Your task to perform on an android device: snooze an email in the gmail app Image 0: 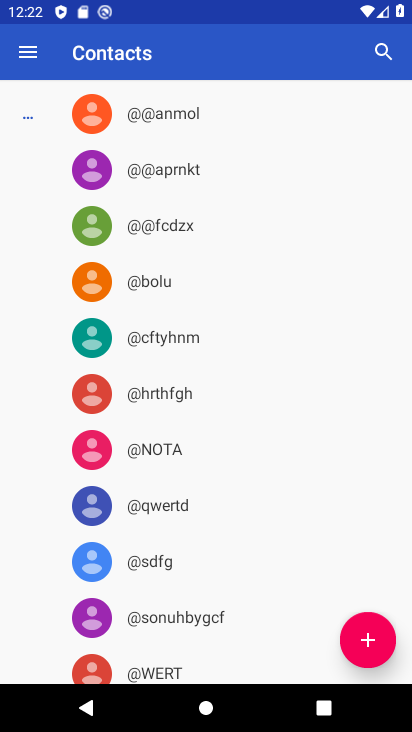
Step 0: press home button
Your task to perform on an android device: snooze an email in the gmail app Image 1: 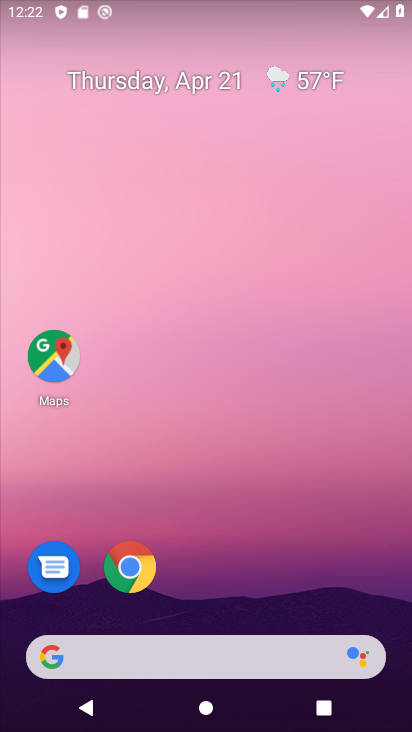
Step 1: drag from (319, 562) to (345, 110)
Your task to perform on an android device: snooze an email in the gmail app Image 2: 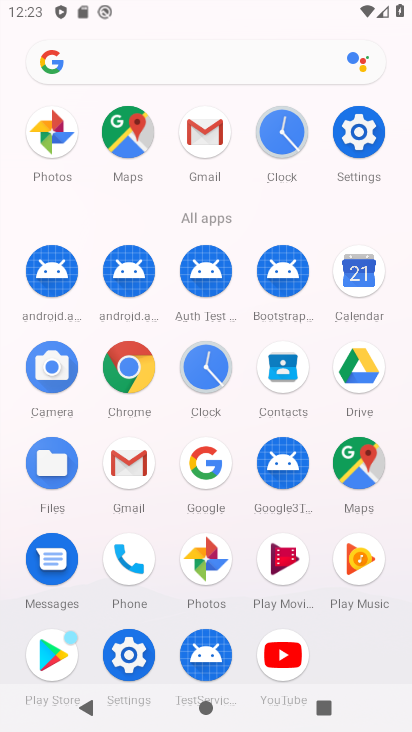
Step 2: click (194, 131)
Your task to perform on an android device: snooze an email in the gmail app Image 3: 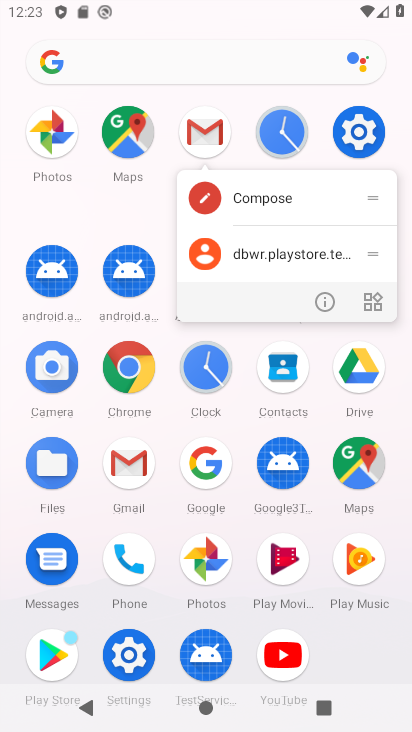
Step 3: click (197, 127)
Your task to perform on an android device: snooze an email in the gmail app Image 4: 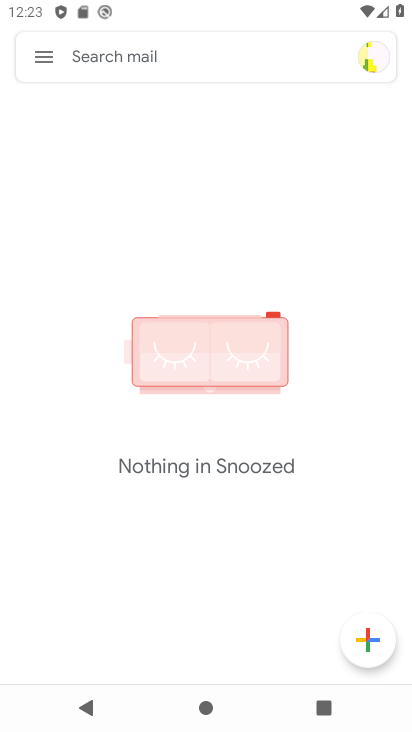
Step 4: task complete